Your task to perform on an android device: visit the assistant section in the google photos Image 0: 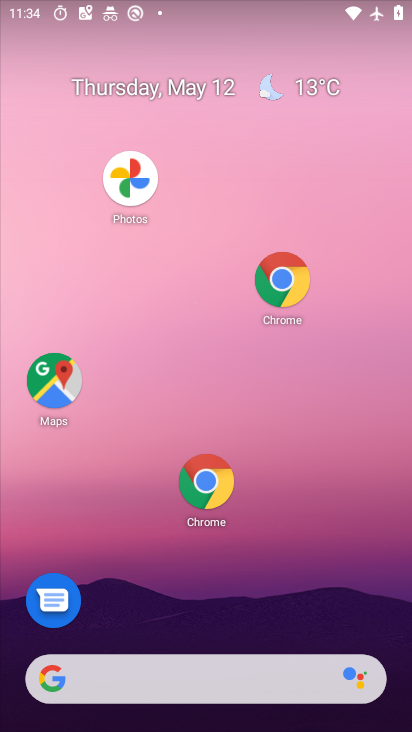
Step 0: drag from (365, 598) to (190, 216)
Your task to perform on an android device: visit the assistant section in the google photos Image 1: 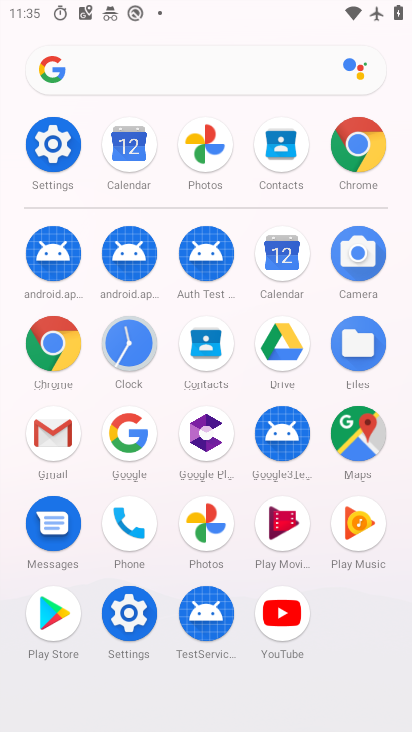
Step 1: click (205, 528)
Your task to perform on an android device: visit the assistant section in the google photos Image 2: 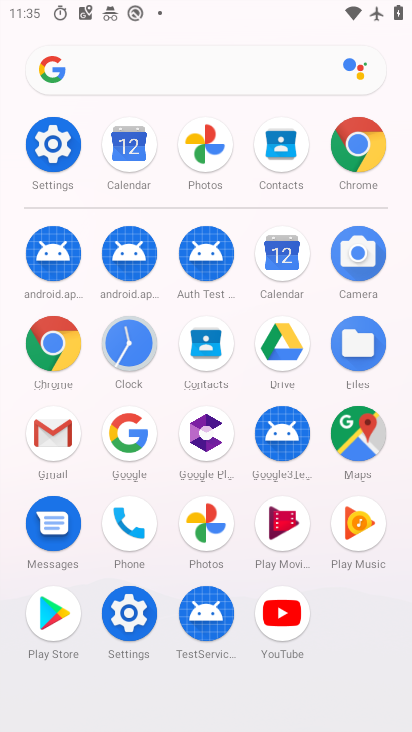
Step 2: click (205, 529)
Your task to perform on an android device: visit the assistant section in the google photos Image 3: 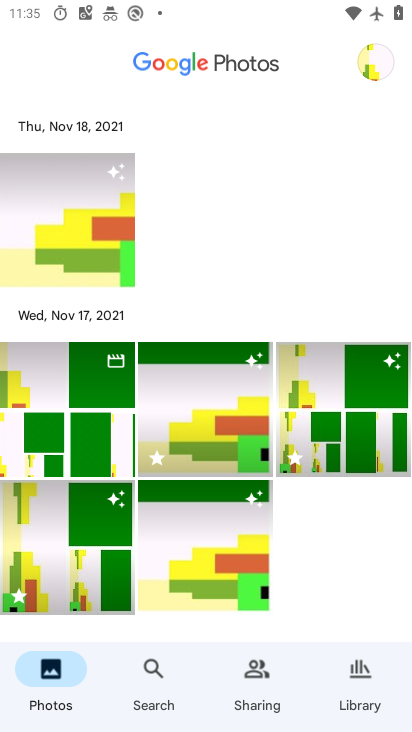
Step 3: click (263, 680)
Your task to perform on an android device: visit the assistant section in the google photos Image 4: 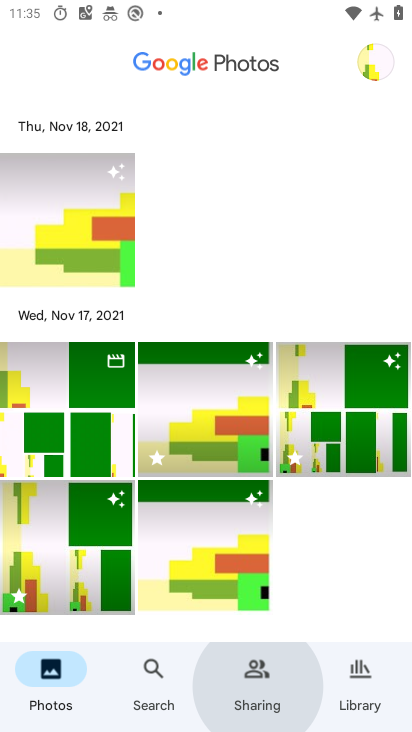
Step 4: click (255, 672)
Your task to perform on an android device: visit the assistant section in the google photos Image 5: 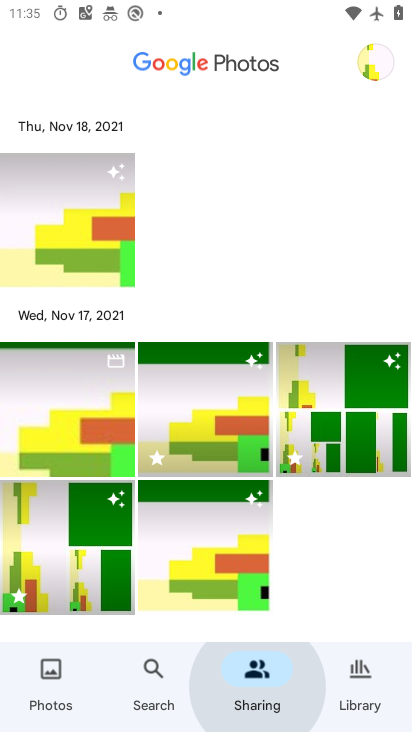
Step 5: click (227, 650)
Your task to perform on an android device: visit the assistant section in the google photos Image 6: 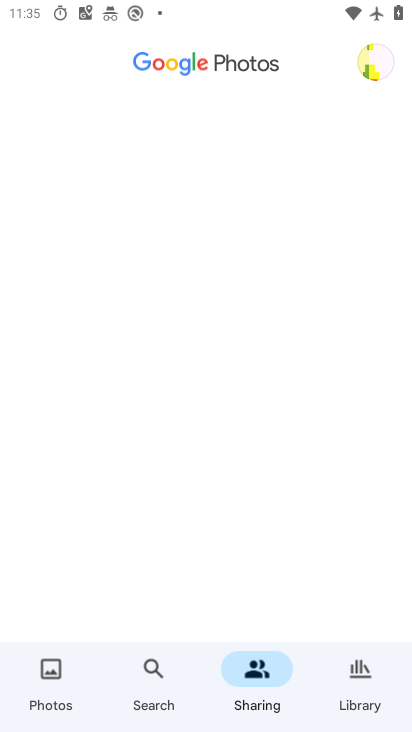
Step 6: click (229, 651)
Your task to perform on an android device: visit the assistant section in the google photos Image 7: 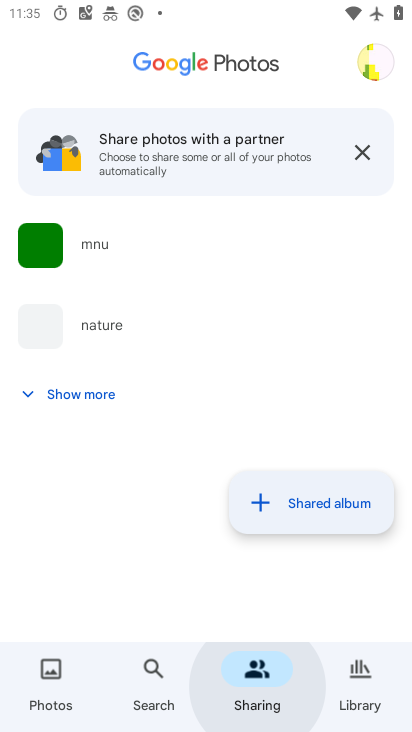
Step 7: click (253, 662)
Your task to perform on an android device: visit the assistant section in the google photos Image 8: 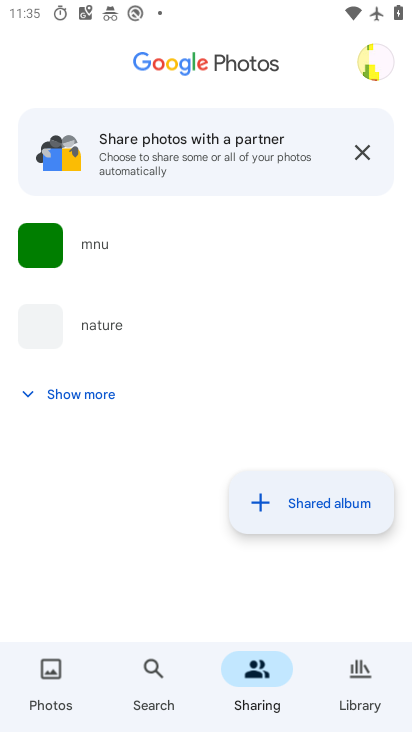
Step 8: click (34, 681)
Your task to perform on an android device: visit the assistant section in the google photos Image 9: 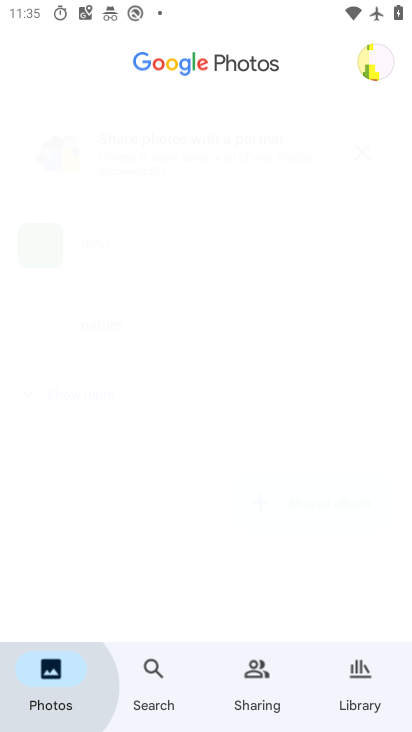
Step 9: click (40, 682)
Your task to perform on an android device: visit the assistant section in the google photos Image 10: 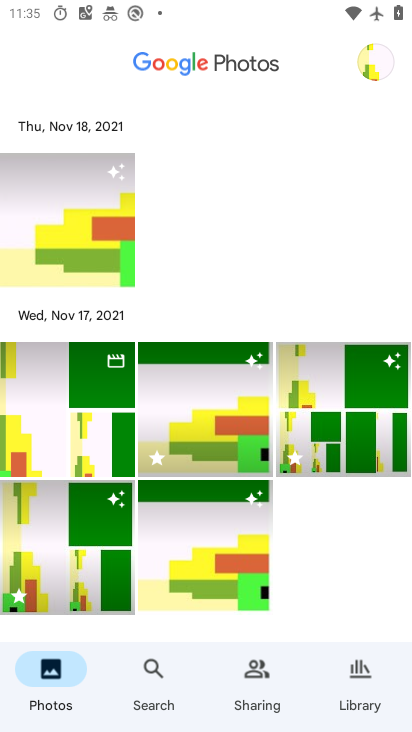
Step 10: task complete